Your task to perform on an android device: stop showing notifications on the lock screen Image 0: 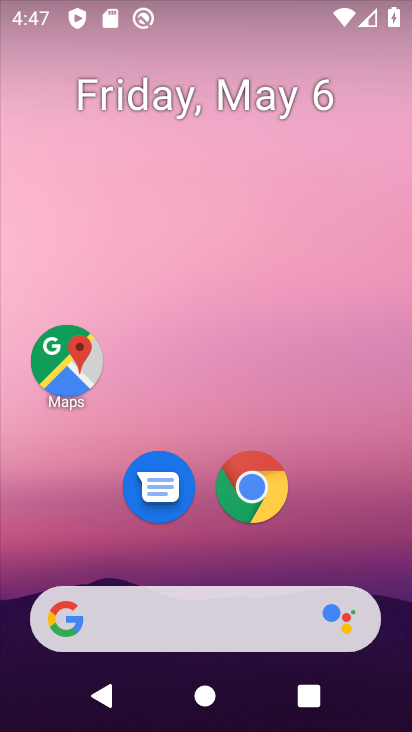
Step 0: drag from (320, 534) to (241, 32)
Your task to perform on an android device: stop showing notifications on the lock screen Image 1: 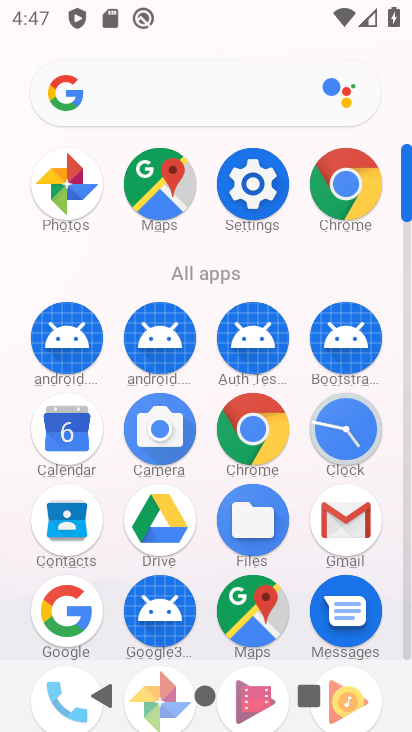
Step 1: click (252, 183)
Your task to perform on an android device: stop showing notifications on the lock screen Image 2: 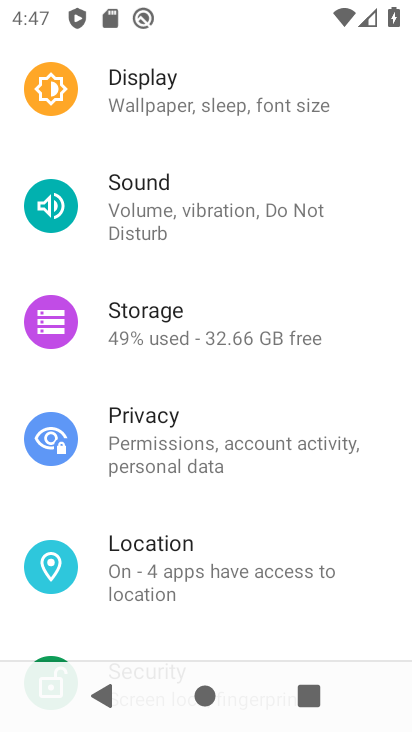
Step 2: drag from (247, 171) to (241, 242)
Your task to perform on an android device: stop showing notifications on the lock screen Image 3: 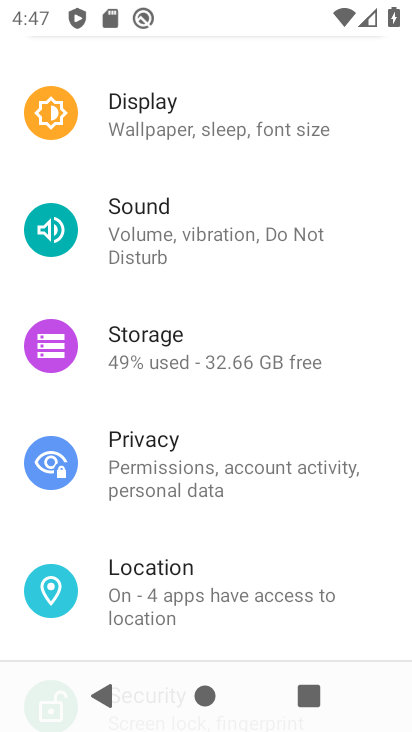
Step 3: drag from (204, 181) to (216, 301)
Your task to perform on an android device: stop showing notifications on the lock screen Image 4: 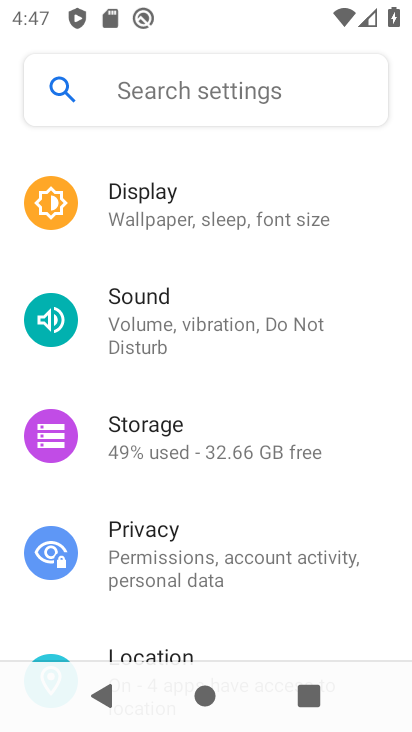
Step 4: drag from (205, 208) to (225, 305)
Your task to perform on an android device: stop showing notifications on the lock screen Image 5: 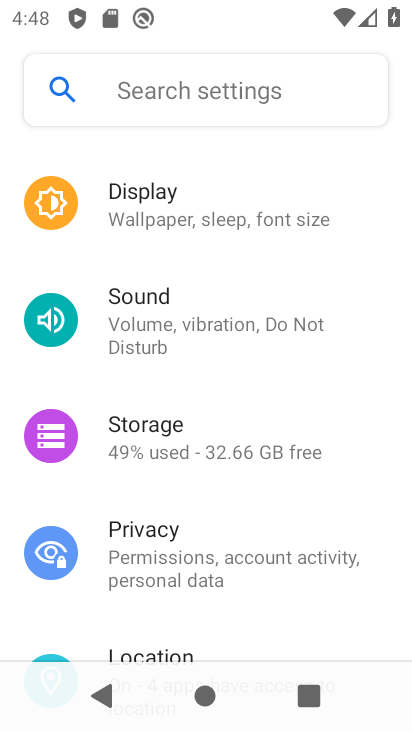
Step 5: drag from (241, 185) to (225, 426)
Your task to perform on an android device: stop showing notifications on the lock screen Image 6: 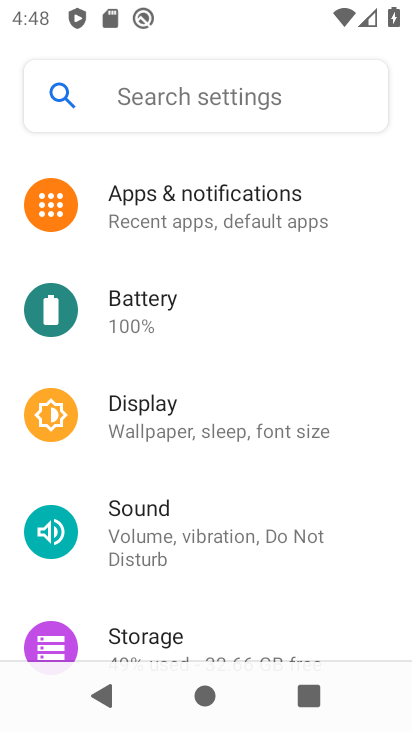
Step 6: click (290, 427)
Your task to perform on an android device: stop showing notifications on the lock screen Image 7: 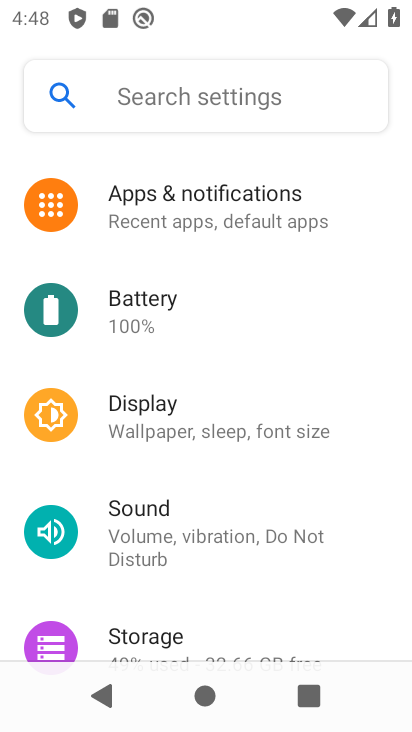
Step 7: click (216, 203)
Your task to perform on an android device: stop showing notifications on the lock screen Image 8: 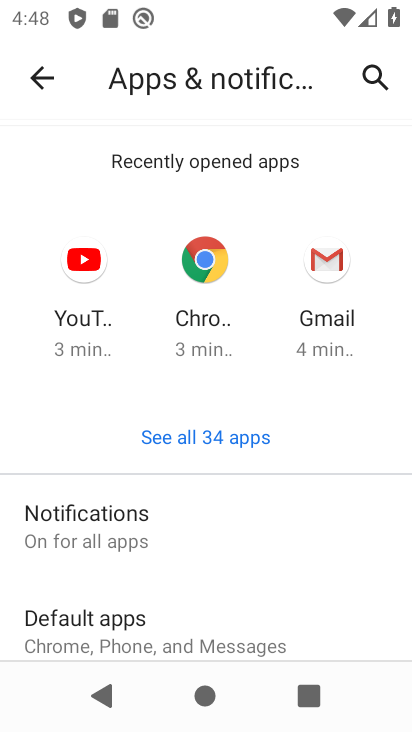
Step 8: click (107, 515)
Your task to perform on an android device: stop showing notifications on the lock screen Image 9: 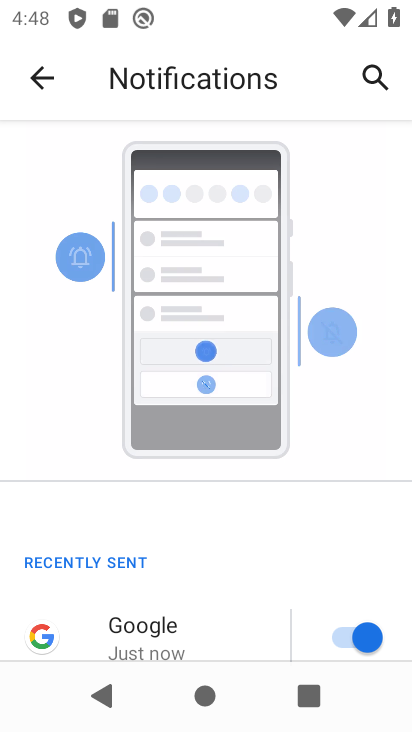
Step 9: drag from (203, 571) to (253, 210)
Your task to perform on an android device: stop showing notifications on the lock screen Image 10: 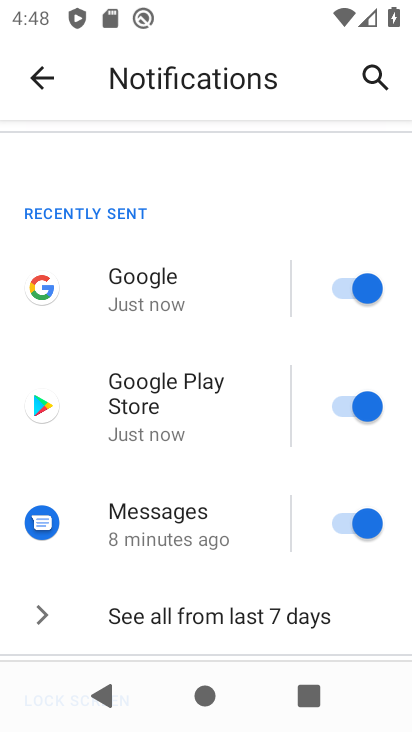
Step 10: drag from (193, 476) to (255, 251)
Your task to perform on an android device: stop showing notifications on the lock screen Image 11: 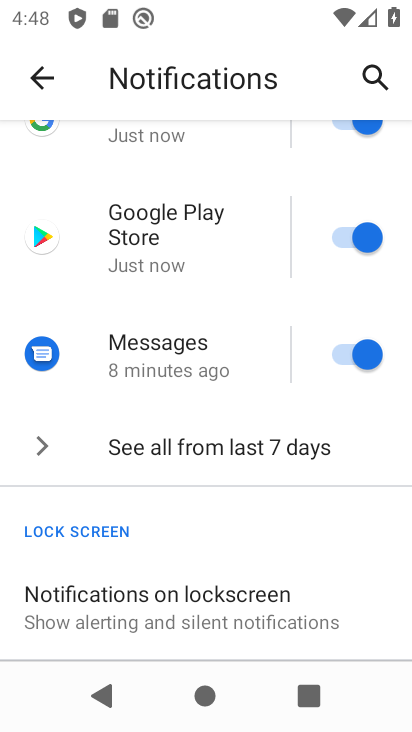
Step 11: drag from (188, 522) to (208, 349)
Your task to perform on an android device: stop showing notifications on the lock screen Image 12: 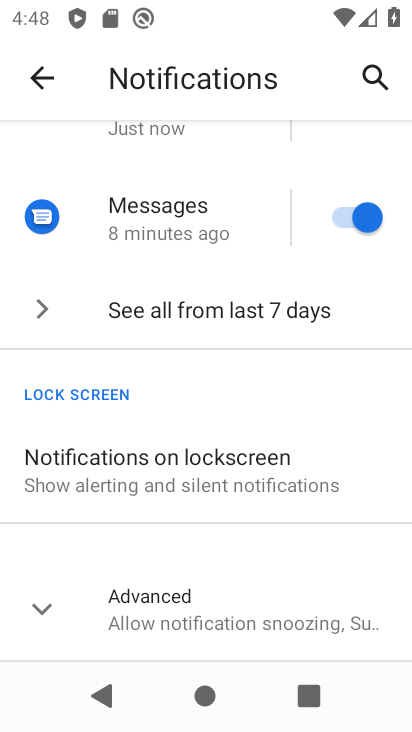
Step 12: click (132, 460)
Your task to perform on an android device: stop showing notifications on the lock screen Image 13: 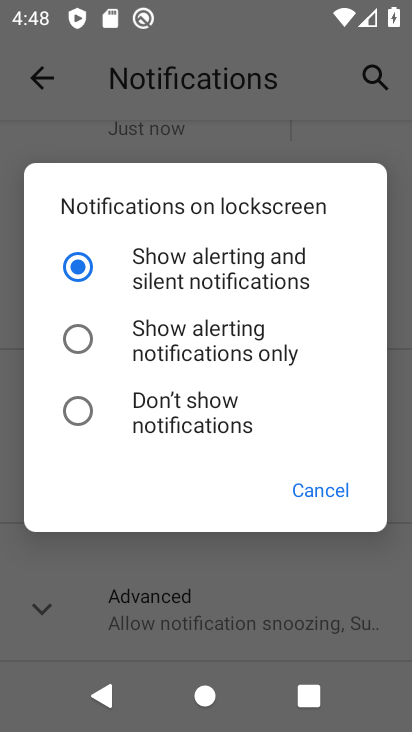
Step 13: click (80, 405)
Your task to perform on an android device: stop showing notifications on the lock screen Image 14: 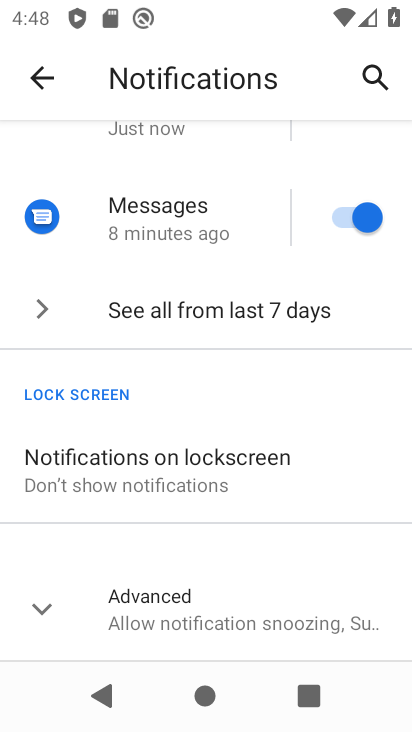
Step 14: task complete